Your task to perform on an android device: Go to accessibility settings Image 0: 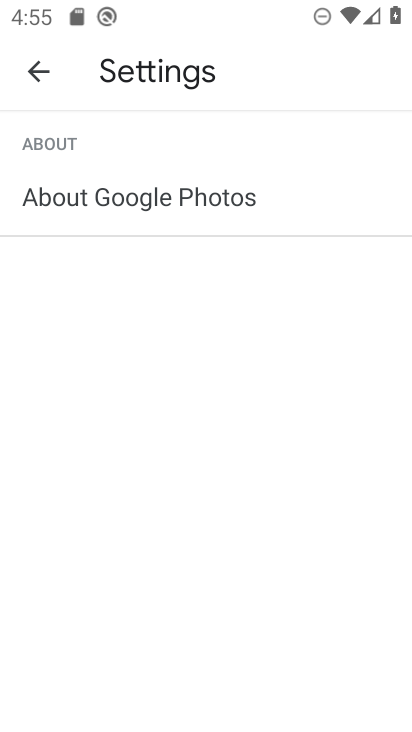
Step 0: press home button
Your task to perform on an android device: Go to accessibility settings Image 1: 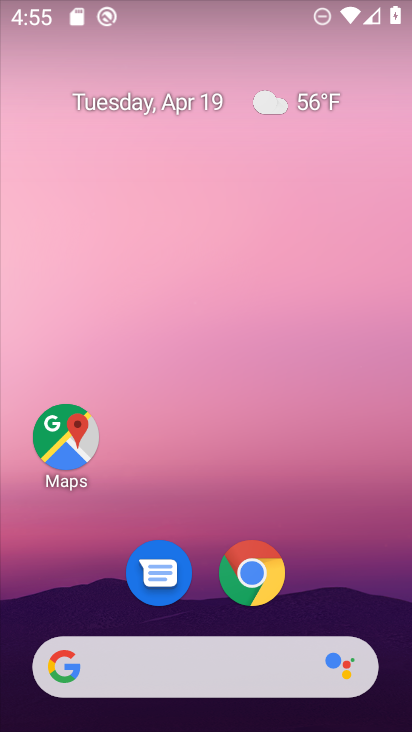
Step 1: drag from (333, 596) to (360, 0)
Your task to perform on an android device: Go to accessibility settings Image 2: 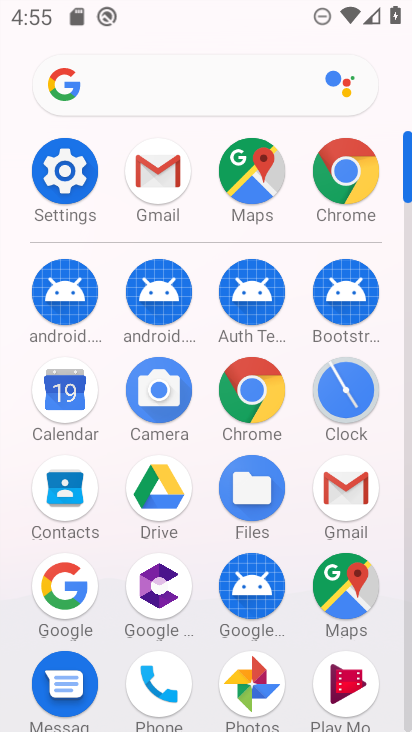
Step 2: click (63, 167)
Your task to perform on an android device: Go to accessibility settings Image 3: 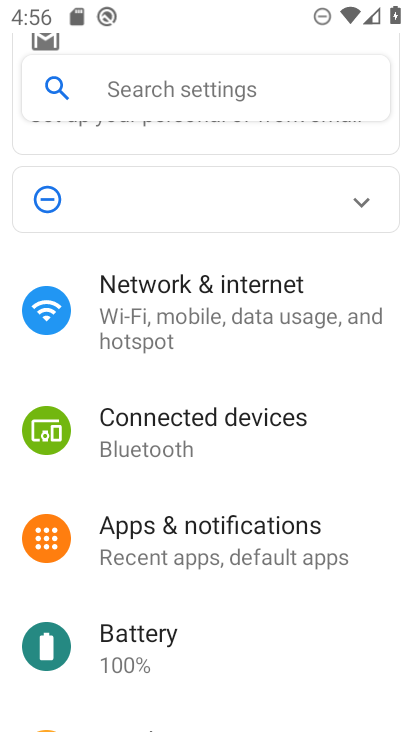
Step 3: drag from (288, 557) to (264, 125)
Your task to perform on an android device: Go to accessibility settings Image 4: 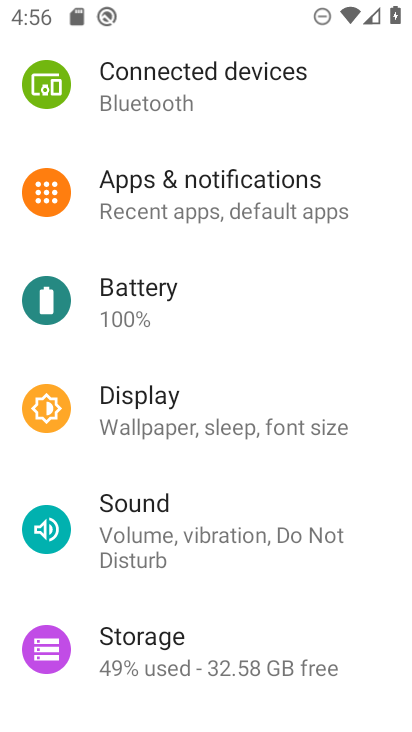
Step 4: drag from (245, 494) to (227, 101)
Your task to perform on an android device: Go to accessibility settings Image 5: 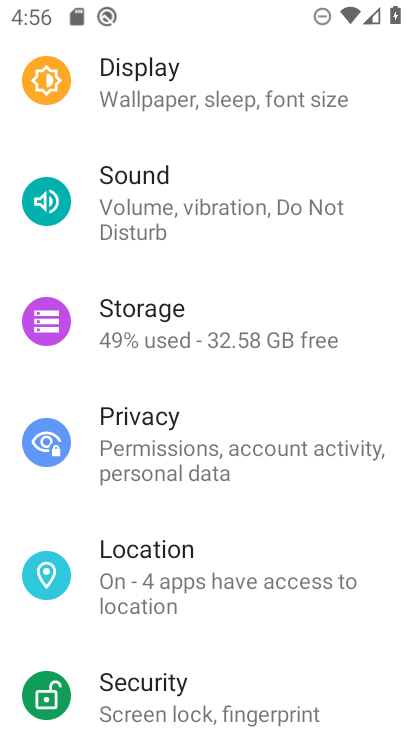
Step 5: drag from (248, 432) to (230, 190)
Your task to perform on an android device: Go to accessibility settings Image 6: 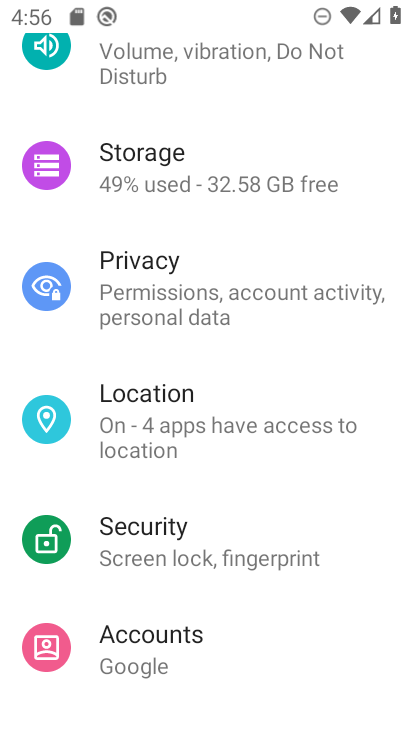
Step 6: drag from (268, 539) to (258, 173)
Your task to perform on an android device: Go to accessibility settings Image 7: 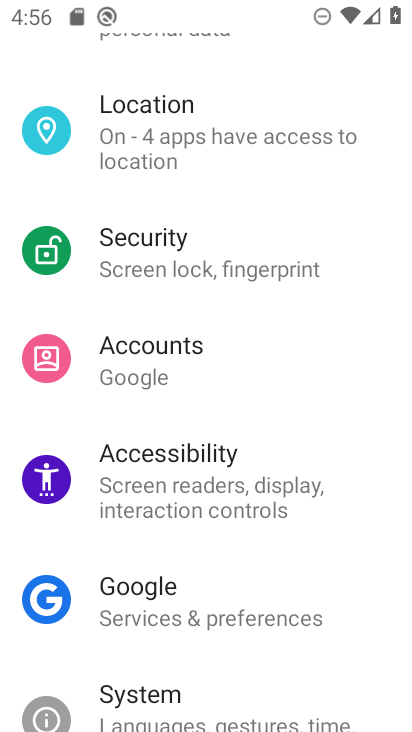
Step 7: click (126, 484)
Your task to perform on an android device: Go to accessibility settings Image 8: 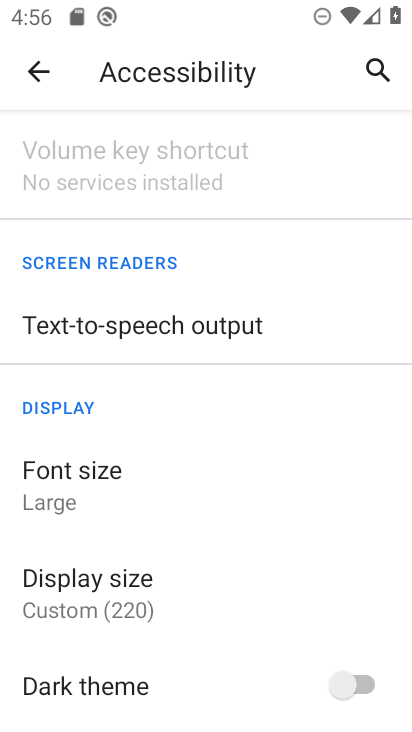
Step 8: task complete